Your task to perform on an android device: When is my next meeting? Image 0: 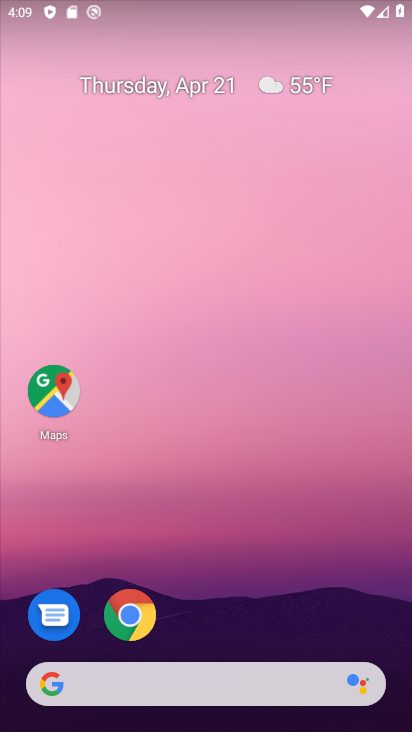
Step 0: drag from (207, 644) to (204, 168)
Your task to perform on an android device: When is my next meeting? Image 1: 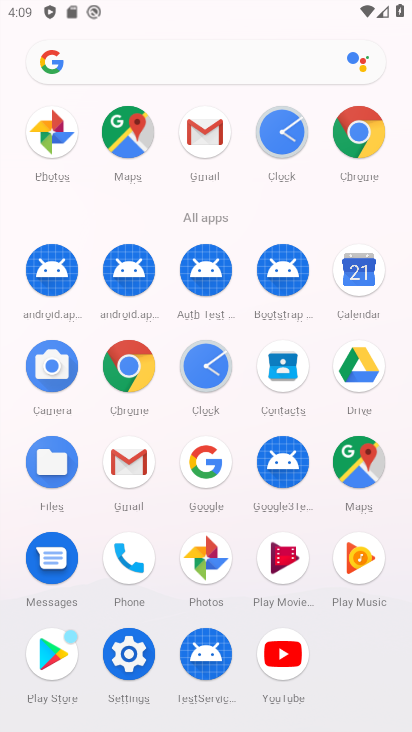
Step 1: click (346, 274)
Your task to perform on an android device: When is my next meeting? Image 2: 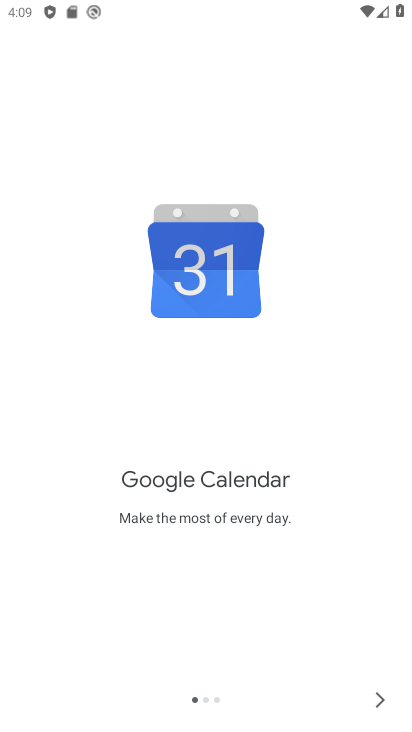
Step 2: click (373, 698)
Your task to perform on an android device: When is my next meeting? Image 3: 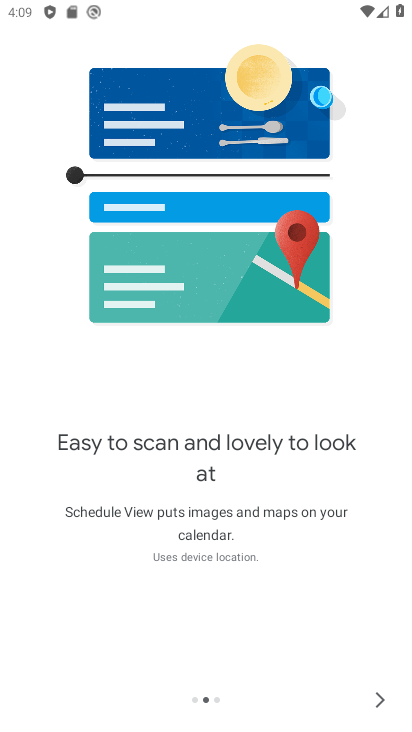
Step 3: click (373, 698)
Your task to perform on an android device: When is my next meeting? Image 4: 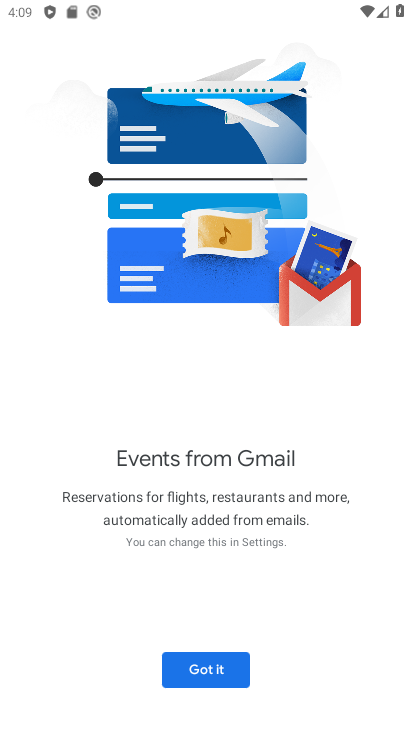
Step 4: click (205, 669)
Your task to perform on an android device: When is my next meeting? Image 5: 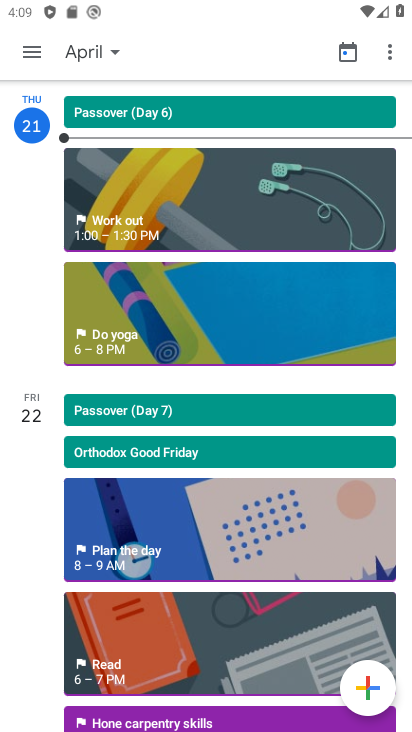
Step 5: click (105, 51)
Your task to perform on an android device: When is my next meeting? Image 6: 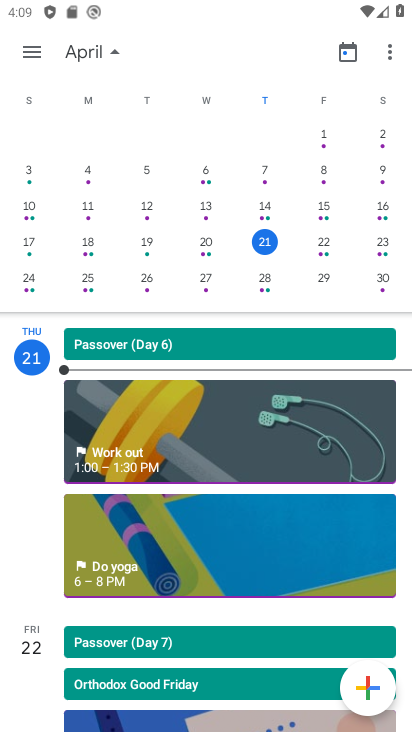
Step 6: click (374, 246)
Your task to perform on an android device: When is my next meeting? Image 7: 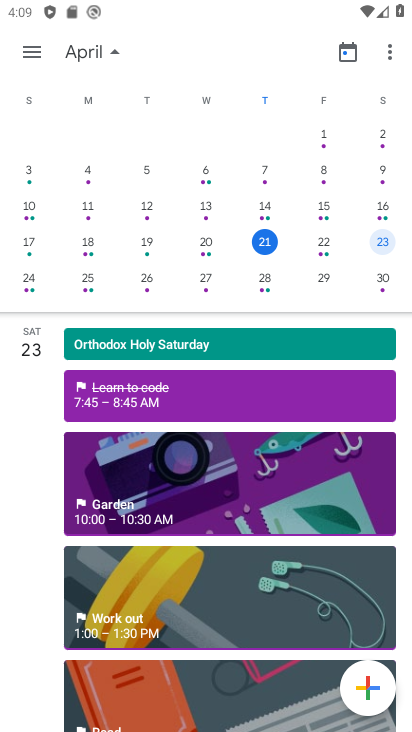
Step 7: click (82, 287)
Your task to perform on an android device: When is my next meeting? Image 8: 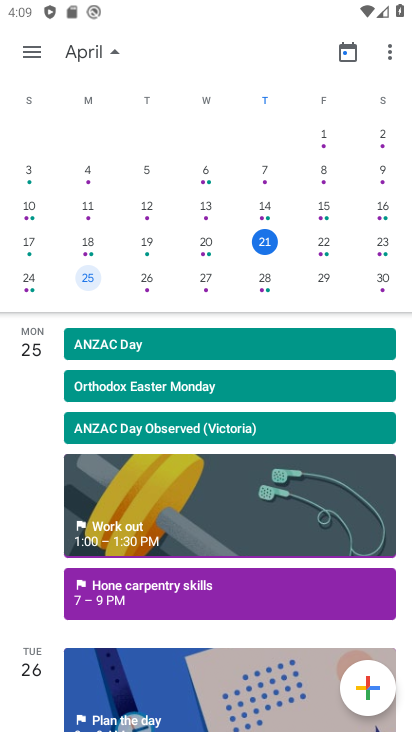
Step 8: click (149, 289)
Your task to perform on an android device: When is my next meeting? Image 9: 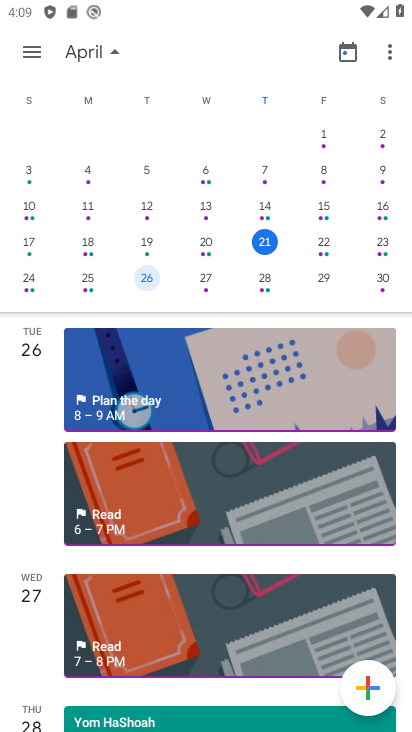
Step 9: task complete